Your task to perform on an android device: Open Chrome and go to the settings page Image 0: 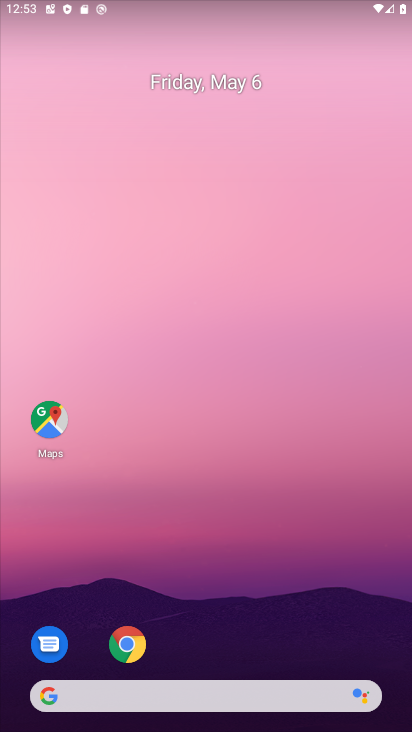
Step 0: drag from (181, 649) to (205, 15)
Your task to perform on an android device: Open Chrome and go to the settings page Image 1: 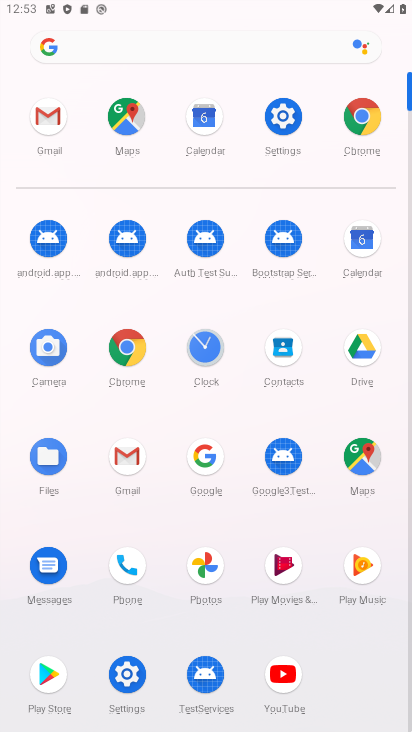
Step 1: click (115, 348)
Your task to perform on an android device: Open Chrome and go to the settings page Image 2: 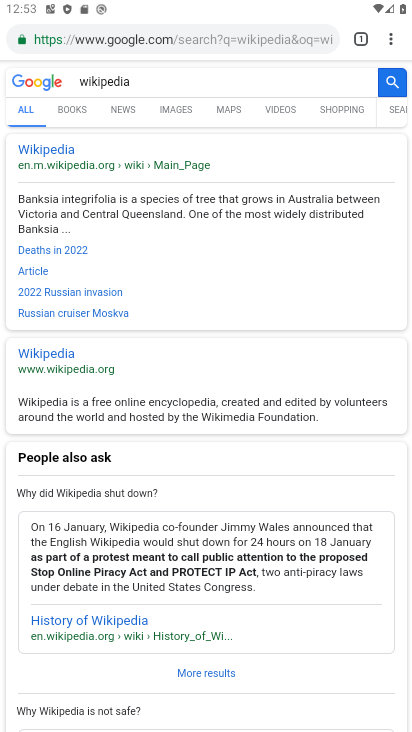
Step 2: task complete